Your task to perform on an android device: check out phone information Image 0: 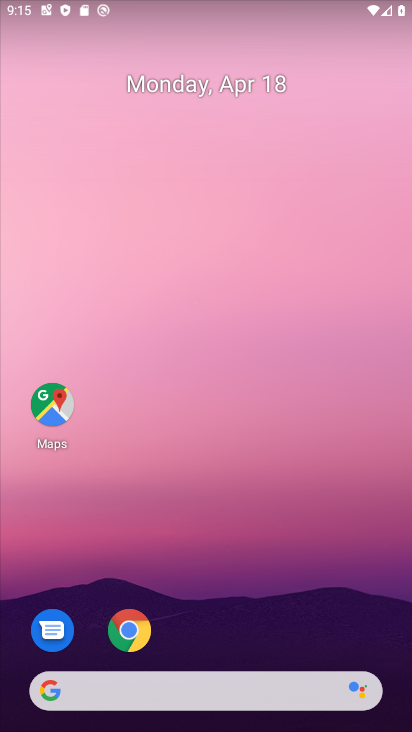
Step 0: drag from (284, 575) to (263, 63)
Your task to perform on an android device: check out phone information Image 1: 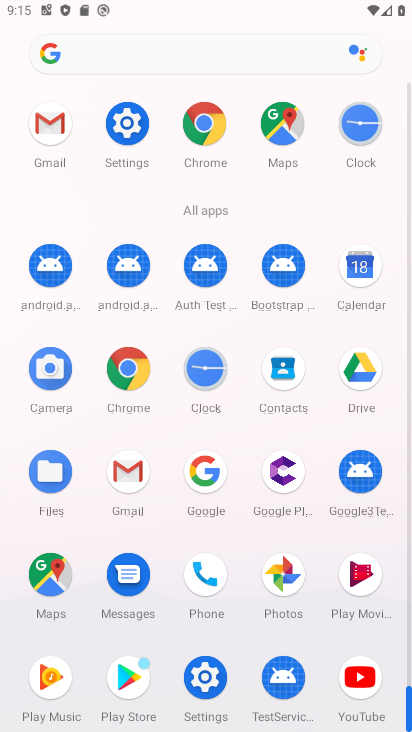
Step 1: click (199, 568)
Your task to perform on an android device: check out phone information Image 2: 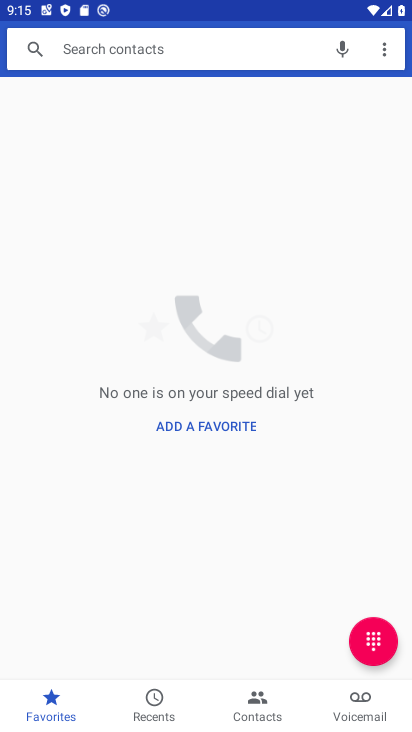
Step 2: click (381, 46)
Your task to perform on an android device: check out phone information Image 3: 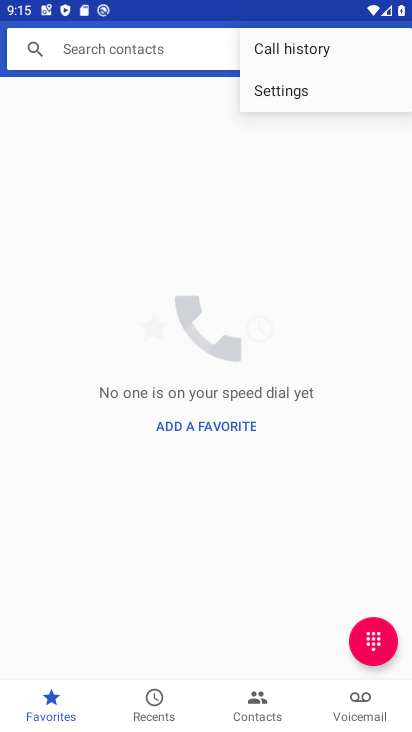
Step 3: click (332, 95)
Your task to perform on an android device: check out phone information Image 4: 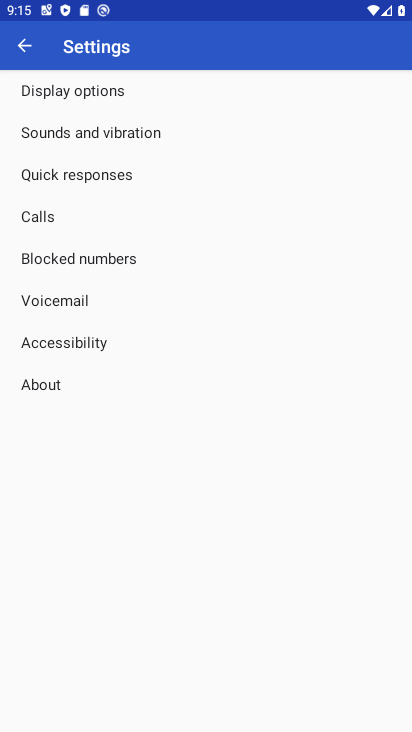
Step 4: click (38, 379)
Your task to perform on an android device: check out phone information Image 5: 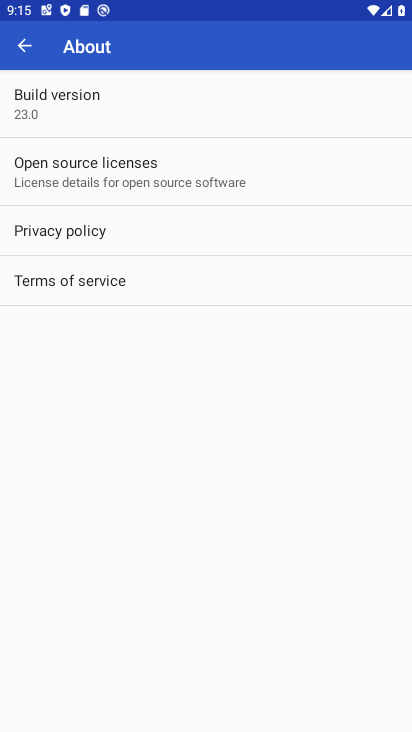
Step 5: task complete